Your task to perform on an android device: Go to Yahoo.com Image 0: 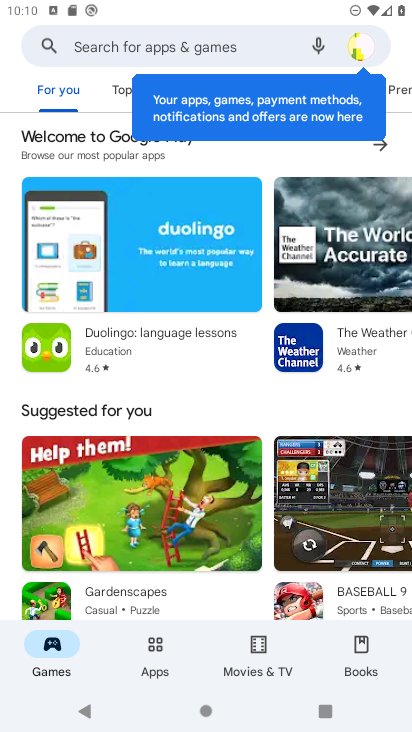
Step 0: press home button
Your task to perform on an android device: Go to Yahoo.com Image 1: 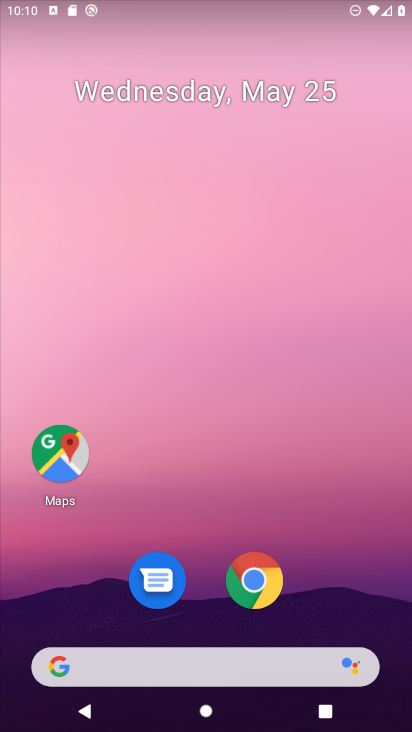
Step 1: click (249, 578)
Your task to perform on an android device: Go to Yahoo.com Image 2: 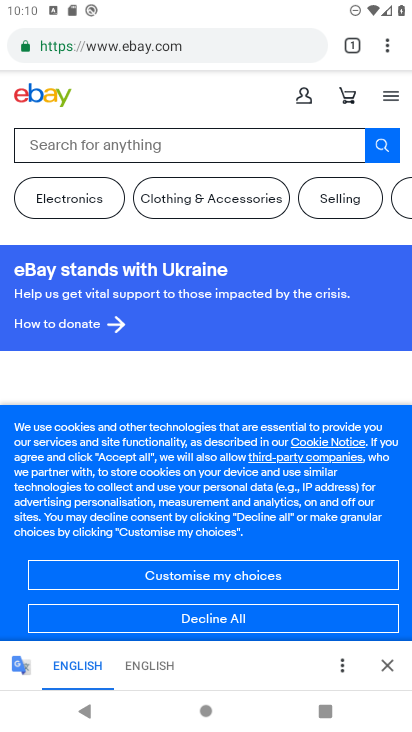
Step 2: click (355, 48)
Your task to perform on an android device: Go to Yahoo.com Image 3: 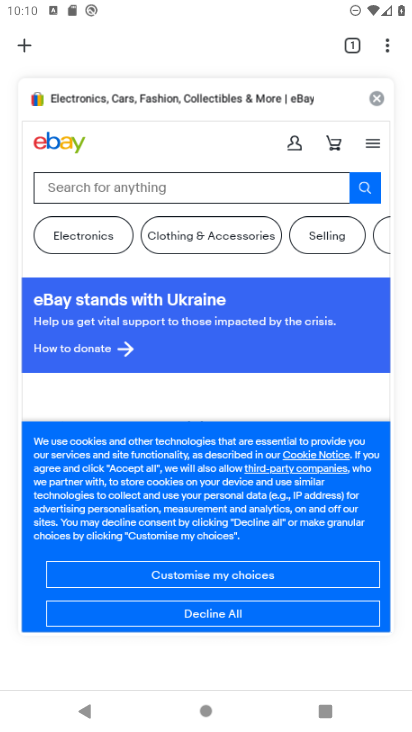
Step 3: click (379, 99)
Your task to perform on an android device: Go to Yahoo.com Image 4: 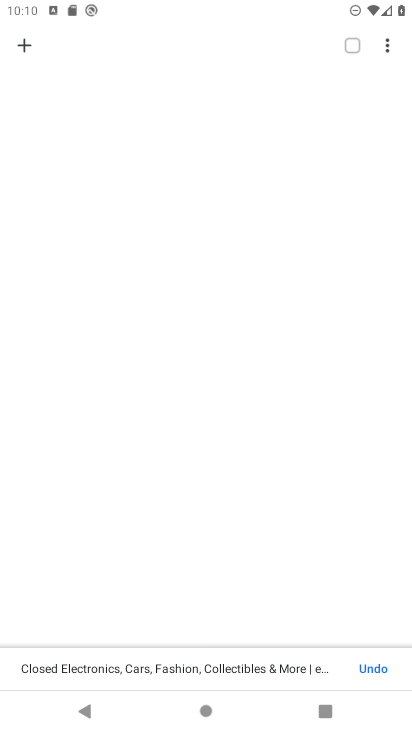
Step 4: click (23, 52)
Your task to perform on an android device: Go to Yahoo.com Image 5: 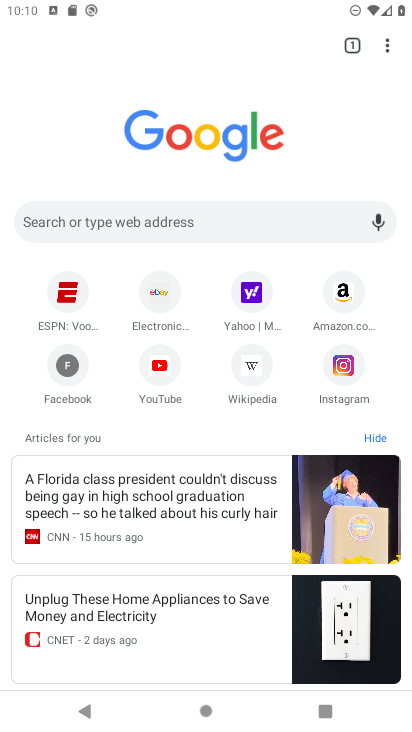
Step 5: click (251, 290)
Your task to perform on an android device: Go to Yahoo.com Image 6: 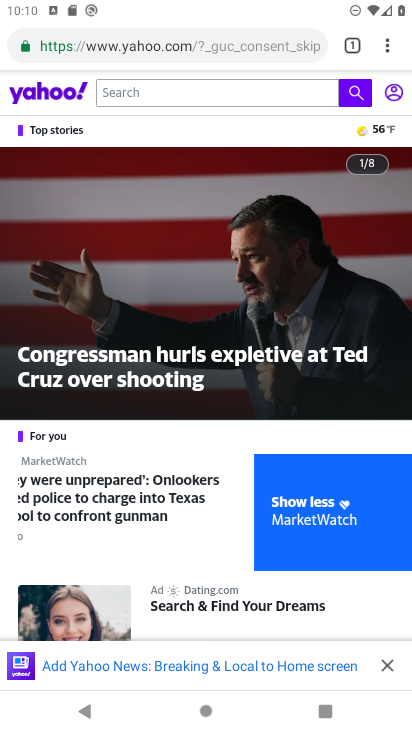
Step 6: task complete